Your task to perform on an android device: turn off priority inbox in the gmail app Image 0: 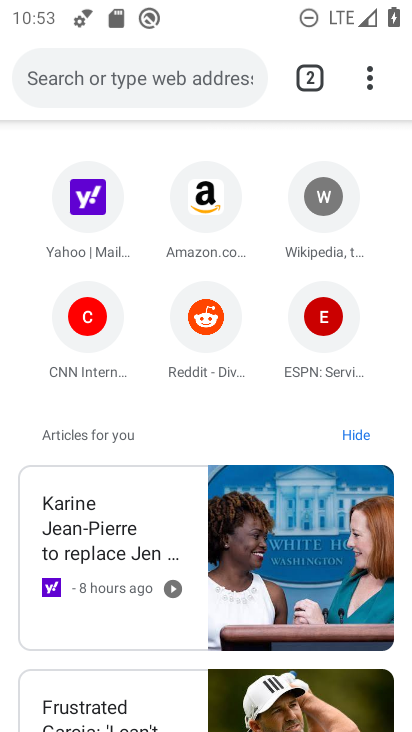
Step 0: press home button
Your task to perform on an android device: turn off priority inbox in the gmail app Image 1: 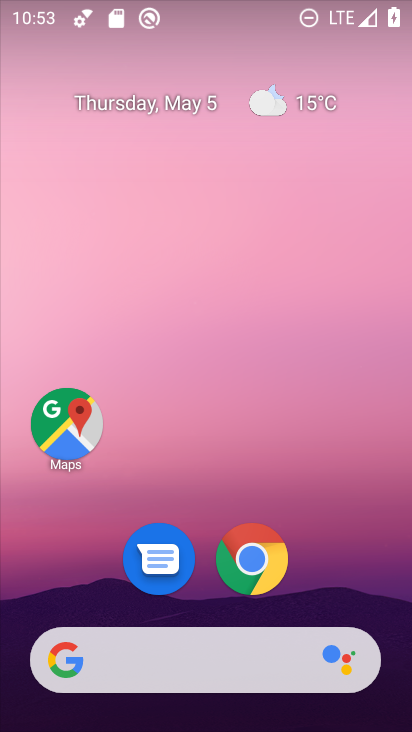
Step 1: drag from (393, 668) to (359, 141)
Your task to perform on an android device: turn off priority inbox in the gmail app Image 2: 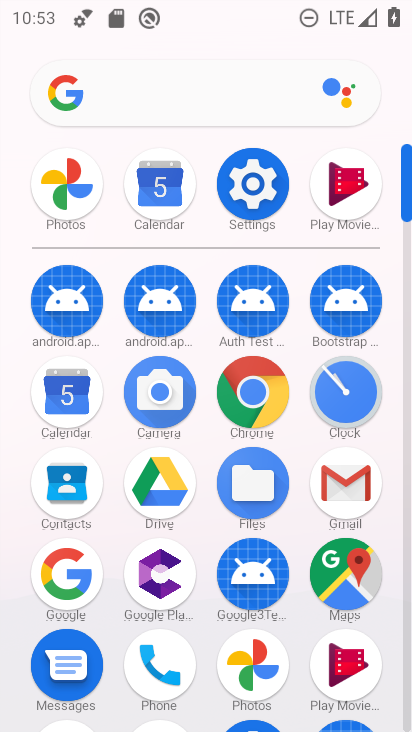
Step 2: click (333, 501)
Your task to perform on an android device: turn off priority inbox in the gmail app Image 3: 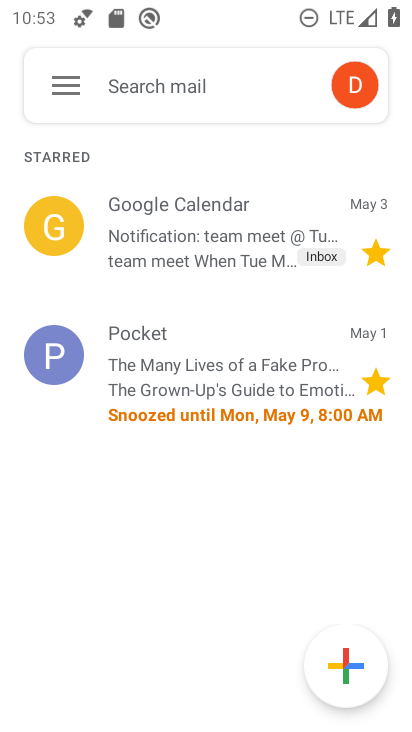
Step 3: click (63, 85)
Your task to perform on an android device: turn off priority inbox in the gmail app Image 4: 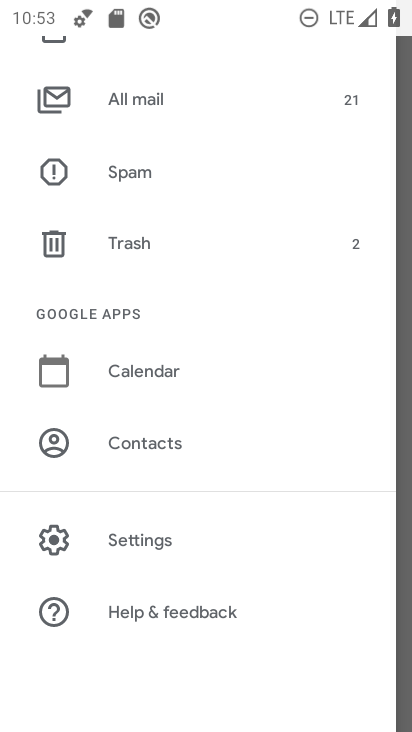
Step 4: click (176, 536)
Your task to perform on an android device: turn off priority inbox in the gmail app Image 5: 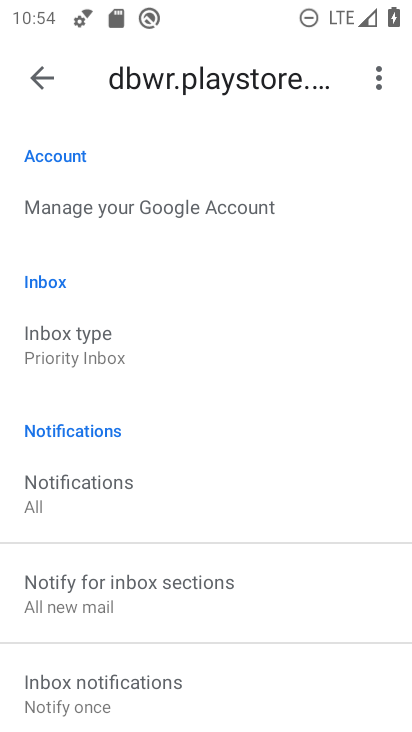
Step 5: drag from (159, 623) to (214, 141)
Your task to perform on an android device: turn off priority inbox in the gmail app Image 6: 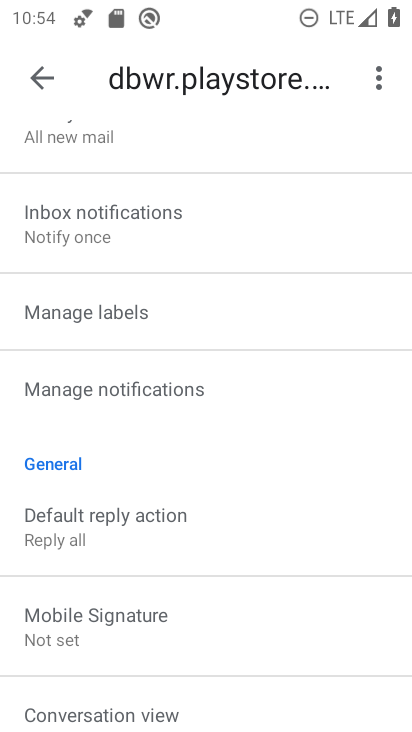
Step 6: drag from (123, 602) to (185, 254)
Your task to perform on an android device: turn off priority inbox in the gmail app Image 7: 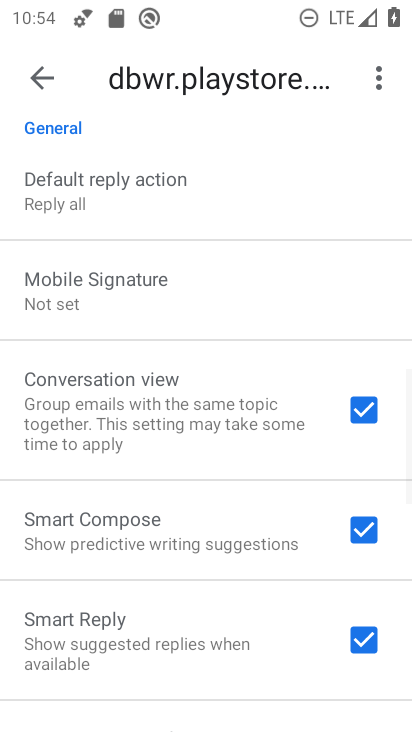
Step 7: drag from (186, 248) to (150, 636)
Your task to perform on an android device: turn off priority inbox in the gmail app Image 8: 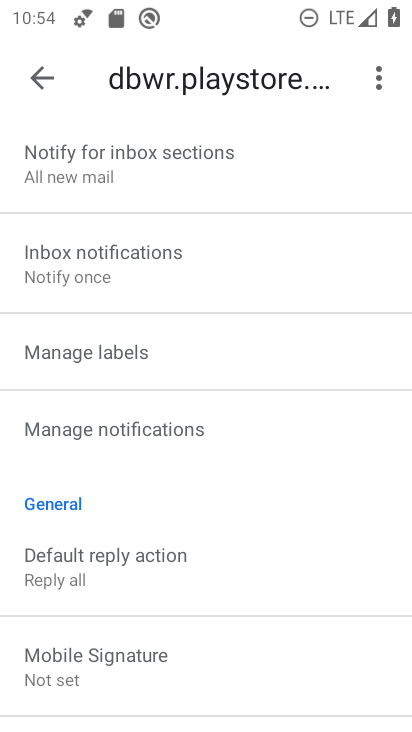
Step 8: drag from (213, 263) to (199, 705)
Your task to perform on an android device: turn off priority inbox in the gmail app Image 9: 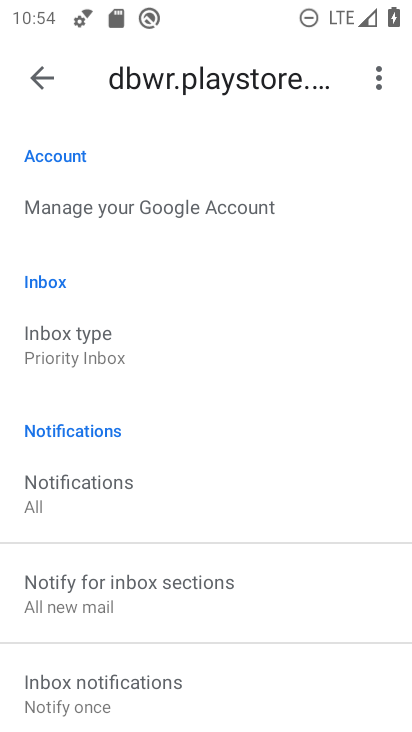
Step 9: click (168, 348)
Your task to perform on an android device: turn off priority inbox in the gmail app Image 10: 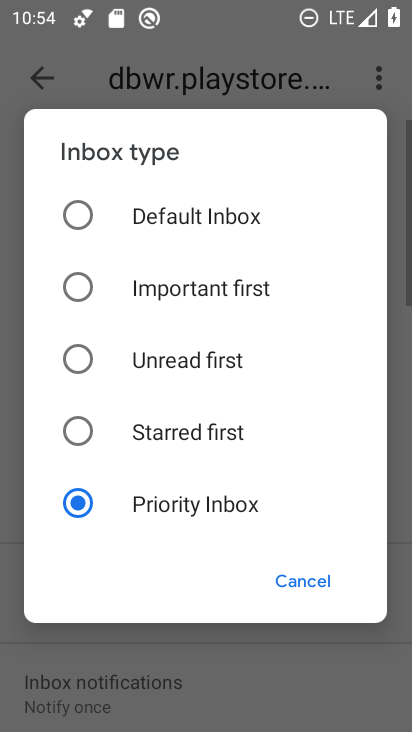
Step 10: click (160, 356)
Your task to perform on an android device: turn off priority inbox in the gmail app Image 11: 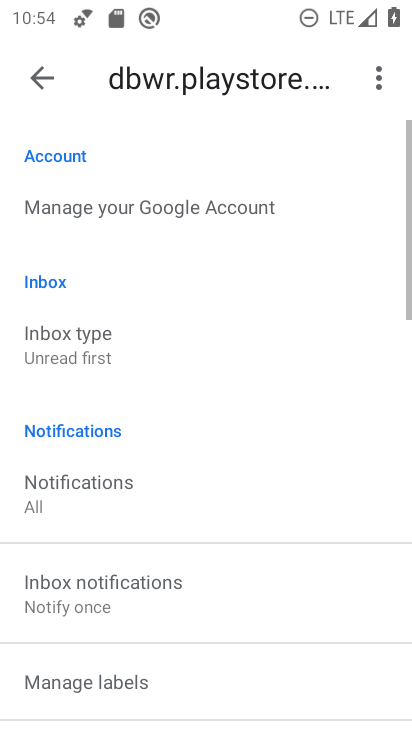
Step 11: task complete